Your task to perform on an android device: Go to CNN.com Image 0: 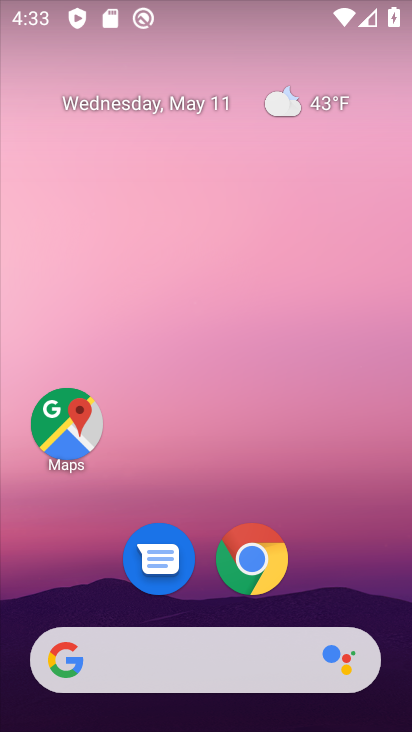
Step 0: click (264, 583)
Your task to perform on an android device: Go to CNN.com Image 1: 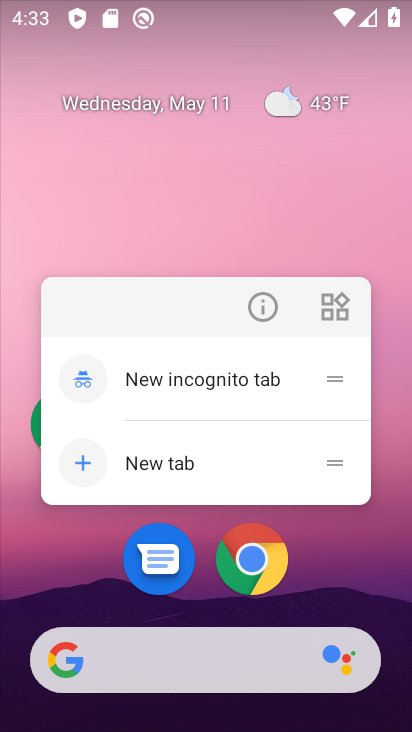
Step 1: click (263, 591)
Your task to perform on an android device: Go to CNN.com Image 2: 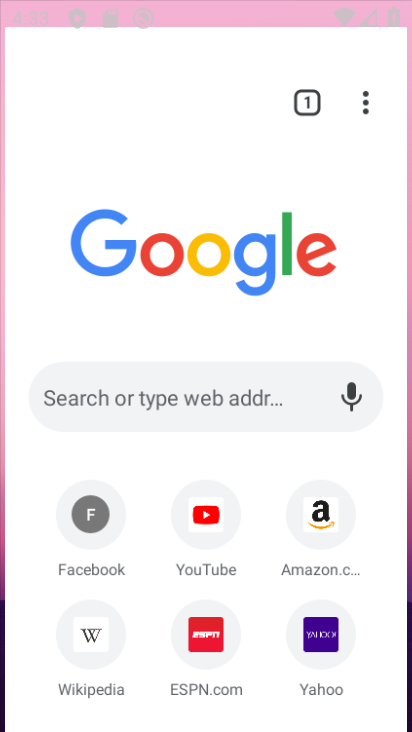
Step 2: click (261, 570)
Your task to perform on an android device: Go to CNN.com Image 3: 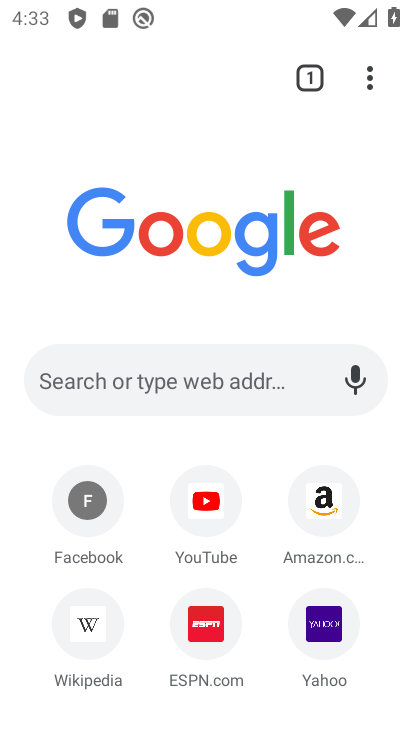
Step 3: click (199, 384)
Your task to perform on an android device: Go to CNN.com Image 4: 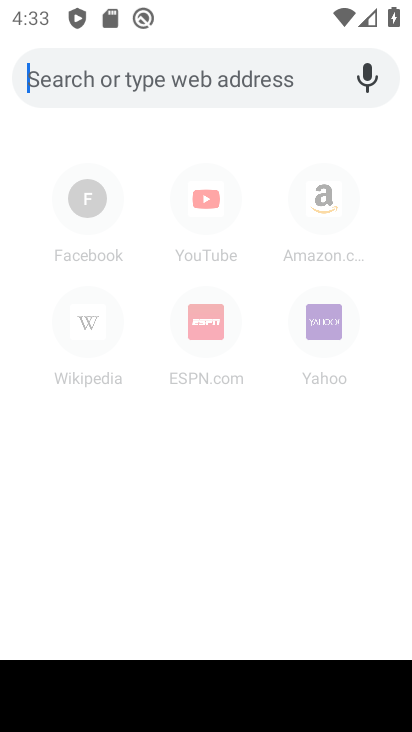
Step 4: type "www.cnn.com"
Your task to perform on an android device: Go to CNN.com Image 5: 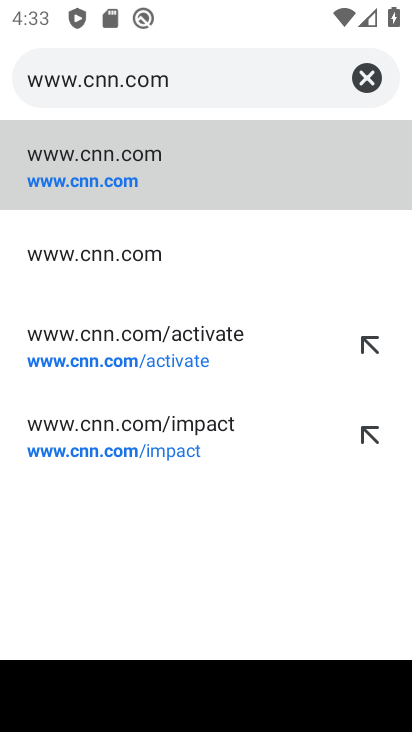
Step 5: click (92, 166)
Your task to perform on an android device: Go to CNN.com Image 6: 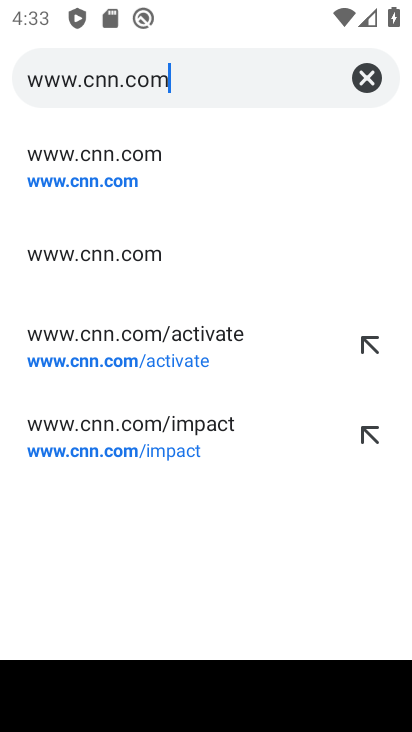
Step 6: click (108, 189)
Your task to perform on an android device: Go to CNN.com Image 7: 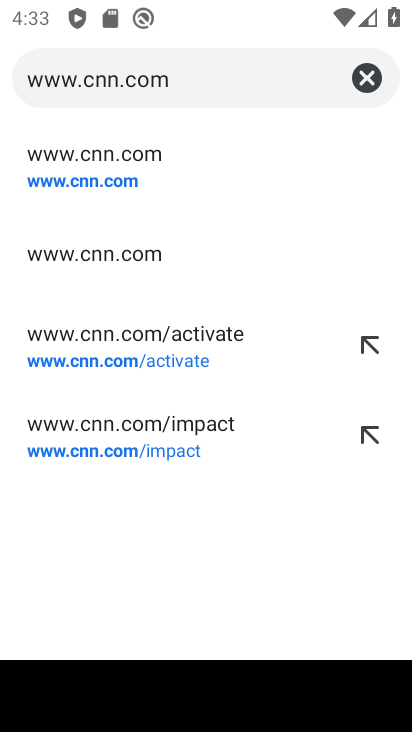
Step 7: click (113, 188)
Your task to perform on an android device: Go to CNN.com Image 8: 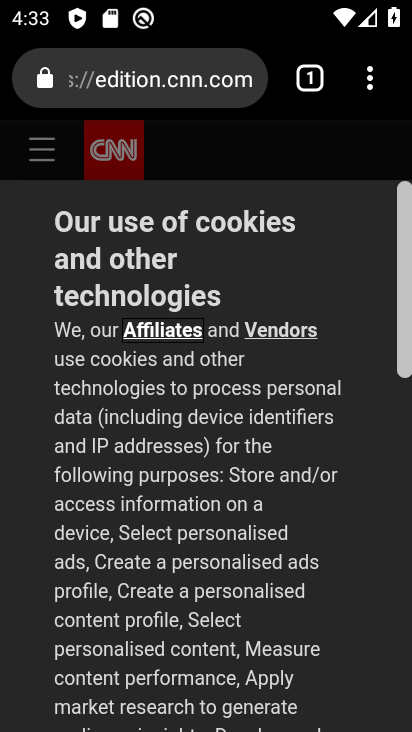
Step 8: task complete